Your task to perform on an android device: turn off improve location accuracy Image 0: 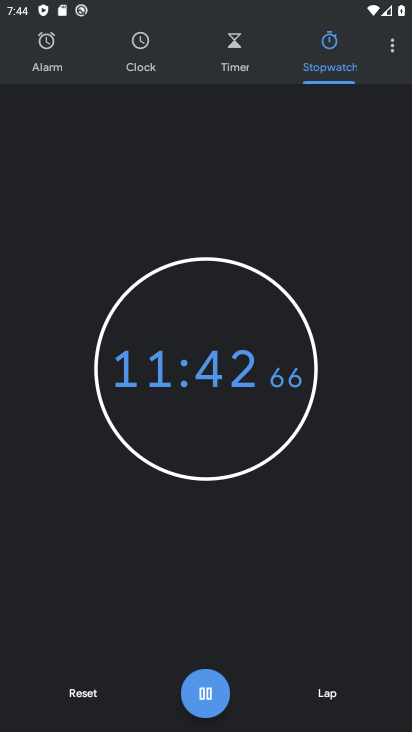
Step 0: press home button
Your task to perform on an android device: turn off improve location accuracy Image 1: 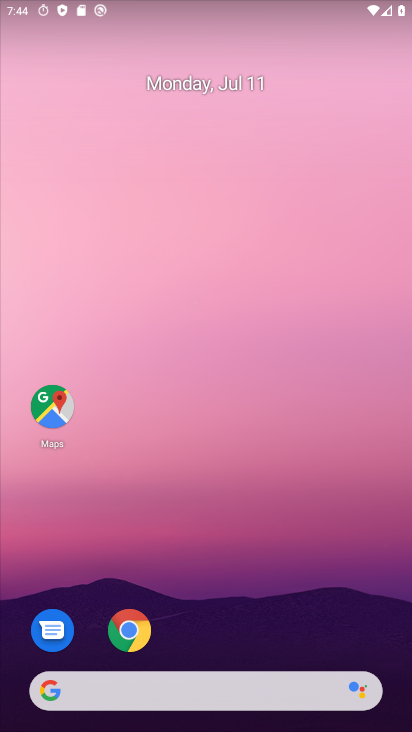
Step 1: drag from (151, 684) to (322, 281)
Your task to perform on an android device: turn off improve location accuracy Image 2: 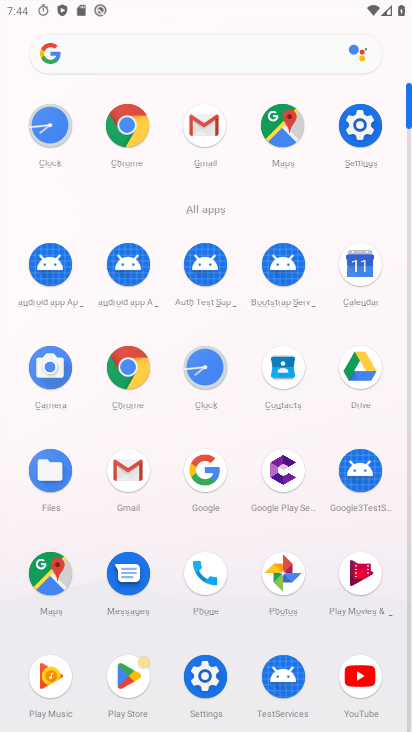
Step 2: click (359, 125)
Your task to perform on an android device: turn off improve location accuracy Image 3: 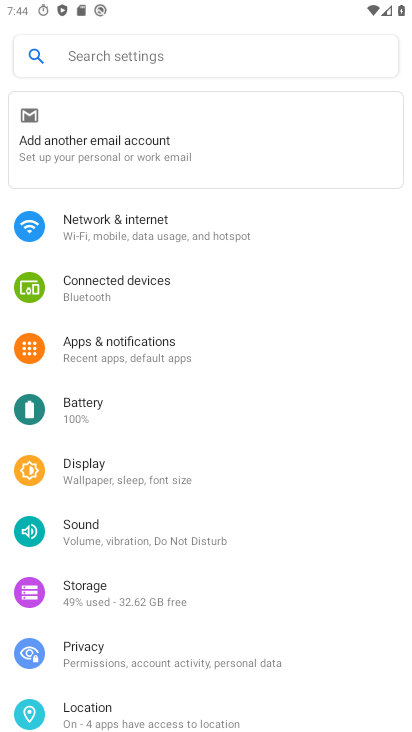
Step 3: drag from (250, 621) to (400, 241)
Your task to perform on an android device: turn off improve location accuracy Image 4: 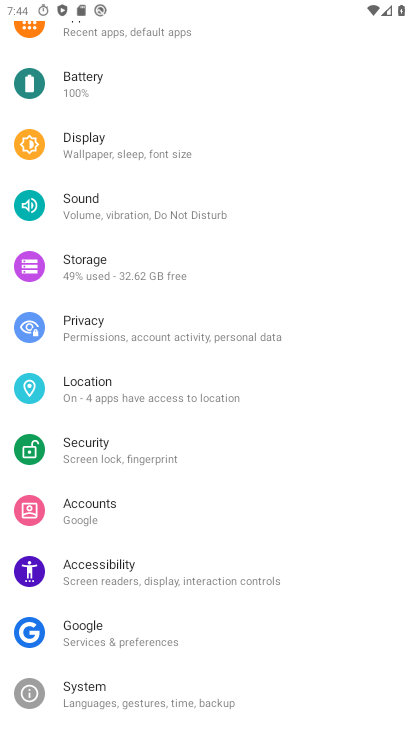
Step 4: click (144, 400)
Your task to perform on an android device: turn off improve location accuracy Image 5: 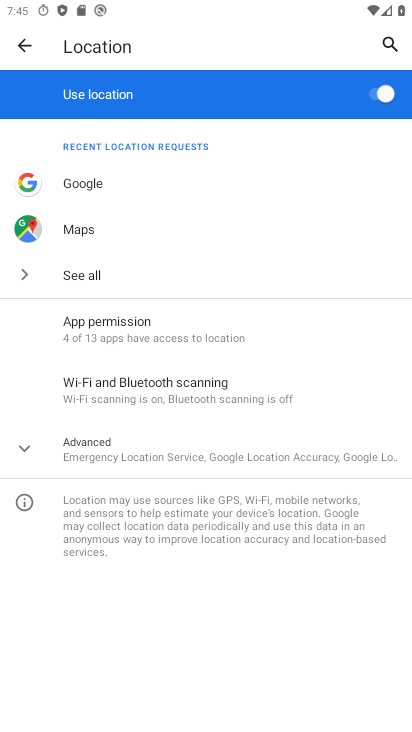
Step 5: click (137, 451)
Your task to perform on an android device: turn off improve location accuracy Image 6: 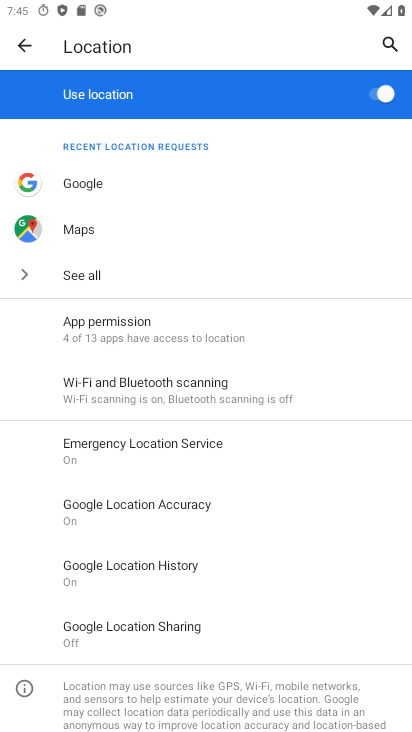
Step 6: click (193, 505)
Your task to perform on an android device: turn off improve location accuracy Image 7: 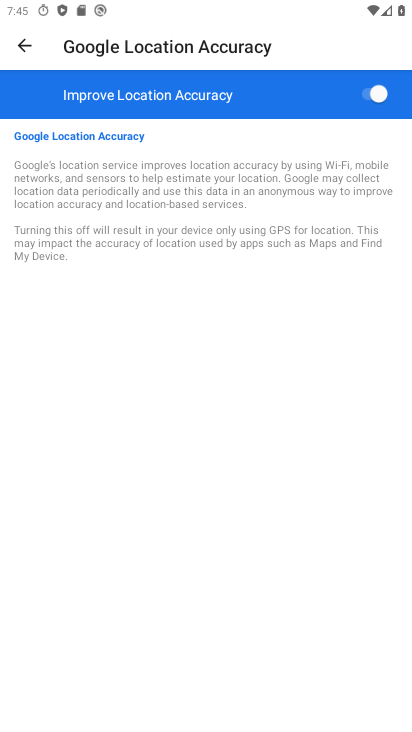
Step 7: click (369, 93)
Your task to perform on an android device: turn off improve location accuracy Image 8: 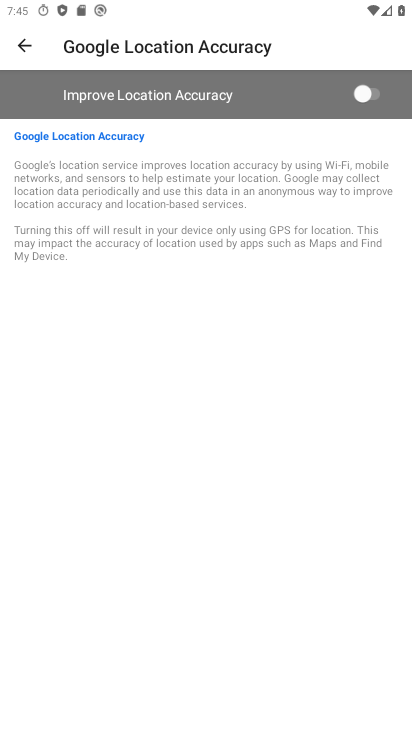
Step 8: task complete